Your task to perform on an android device: What is the news today? Image 0: 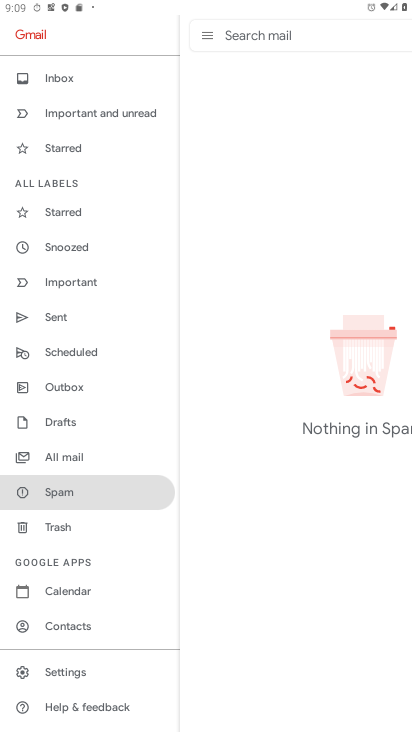
Step 0: click (262, 610)
Your task to perform on an android device: What is the news today? Image 1: 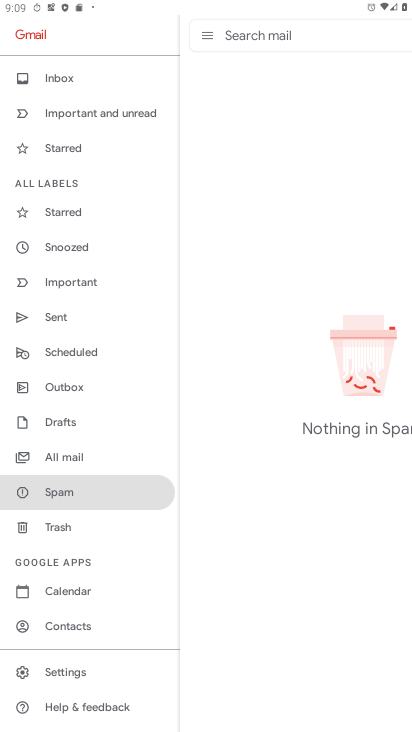
Step 1: press home button
Your task to perform on an android device: What is the news today? Image 2: 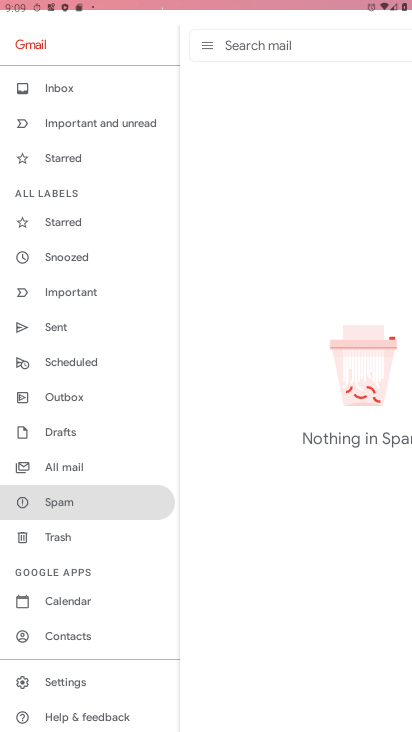
Step 2: press home button
Your task to perform on an android device: What is the news today? Image 3: 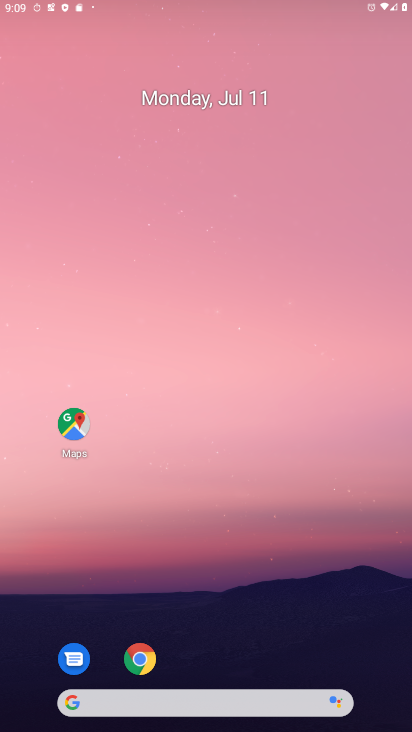
Step 3: drag from (273, 607) to (352, 28)
Your task to perform on an android device: What is the news today? Image 4: 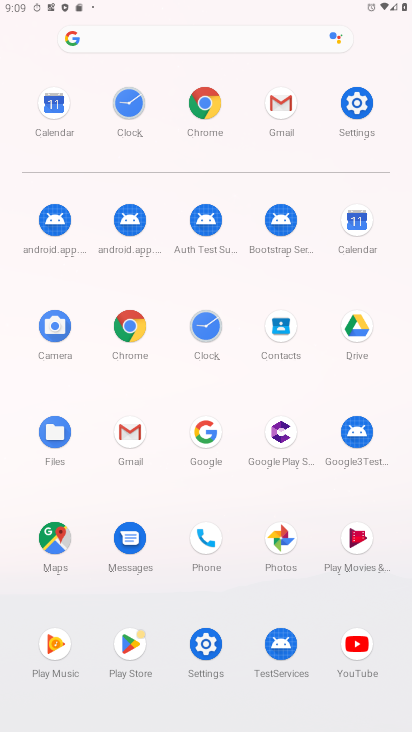
Step 4: click (131, 48)
Your task to perform on an android device: What is the news today? Image 5: 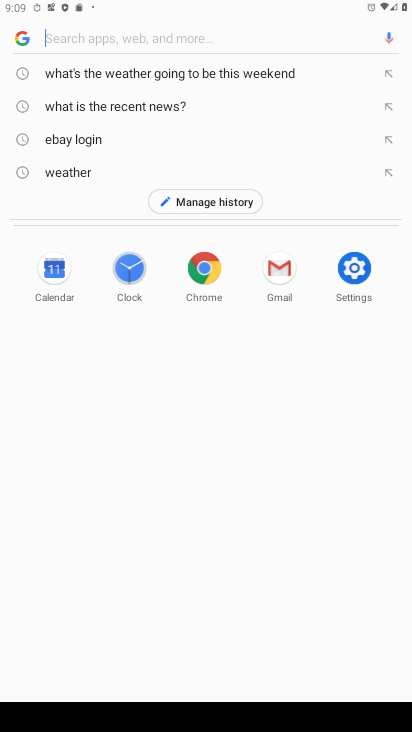
Step 5: type "news today"
Your task to perform on an android device: What is the news today? Image 6: 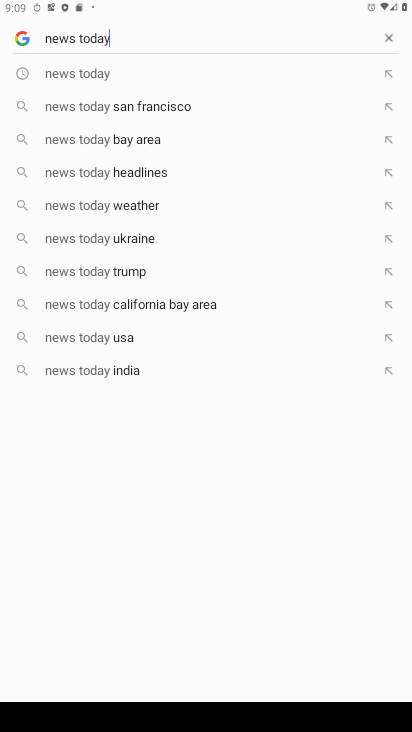
Step 6: click (88, 71)
Your task to perform on an android device: What is the news today? Image 7: 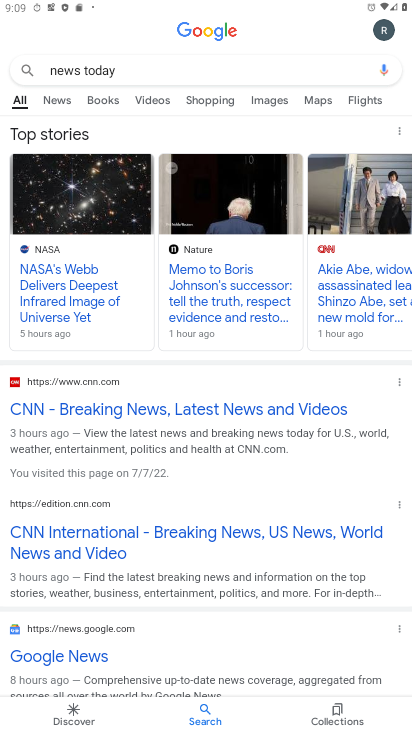
Step 7: drag from (288, 502) to (345, 166)
Your task to perform on an android device: What is the news today? Image 8: 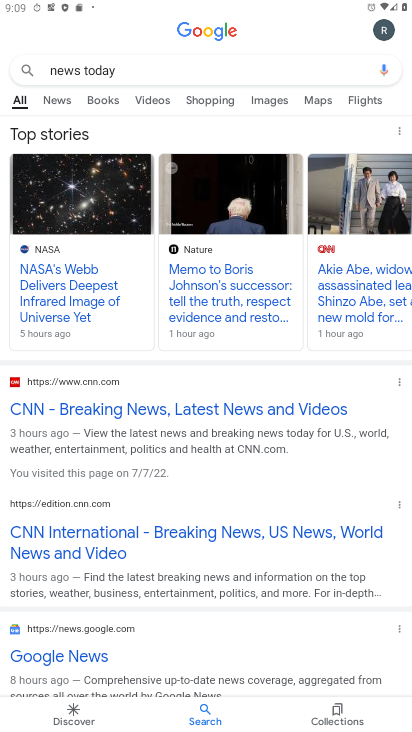
Step 8: drag from (253, 630) to (340, 219)
Your task to perform on an android device: What is the news today? Image 9: 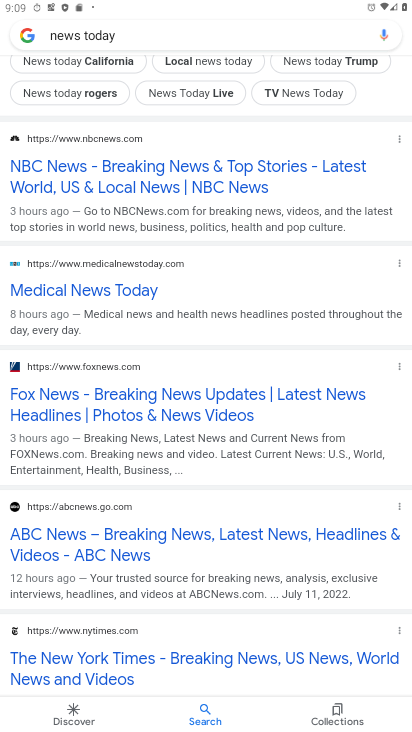
Step 9: drag from (306, 217) to (276, 509)
Your task to perform on an android device: What is the news today? Image 10: 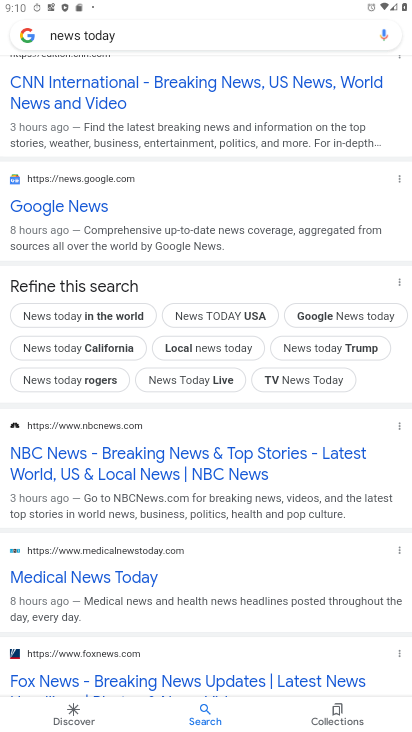
Step 10: drag from (278, 142) to (345, 730)
Your task to perform on an android device: What is the news today? Image 11: 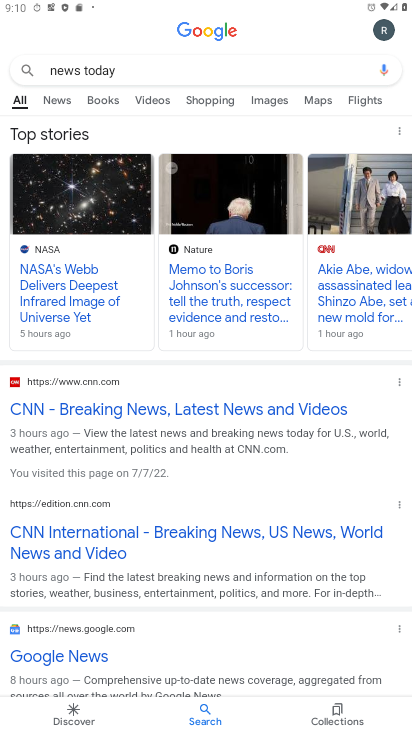
Step 11: click (132, 399)
Your task to perform on an android device: What is the news today? Image 12: 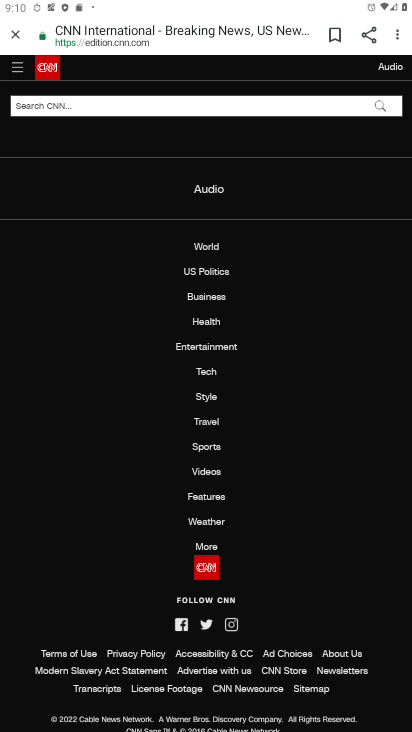
Step 12: task complete